Your task to perform on an android device: add a label to a message in the gmail app Image 0: 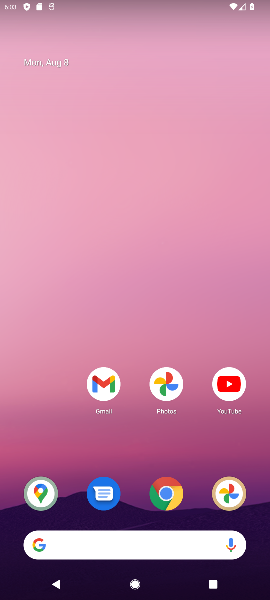
Step 0: drag from (116, 532) to (159, 161)
Your task to perform on an android device: add a label to a message in the gmail app Image 1: 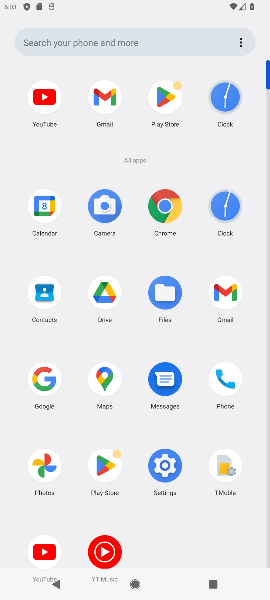
Step 1: click (228, 293)
Your task to perform on an android device: add a label to a message in the gmail app Image 2: 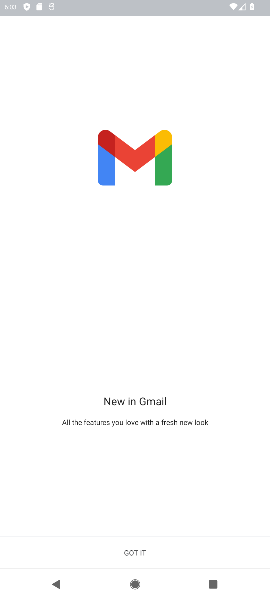
Step 2: click (123, 549)
Your task to perform on an android device: add a label to a message in the gmail app Image 3: 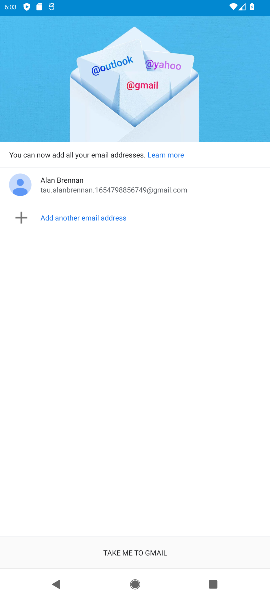
Step 3: click (123, 547)
Your task to perform on an android device: add a label to a message in the gmail app Image 4: 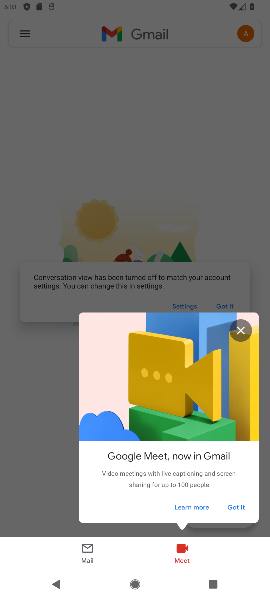
Step 4: click (240, 333)
Your task to perform on an android device: add a label to a message in the gmail app Image 5: 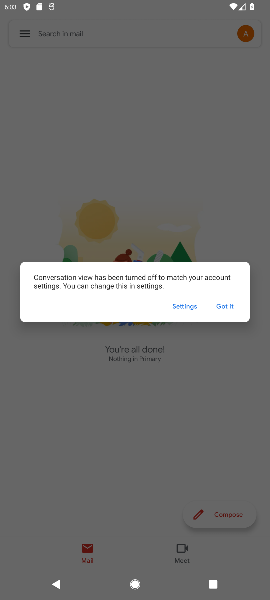
Step 5: click (225, 307)
Your task to perform on an android device: add a label to a message in the gmail app Image 6: 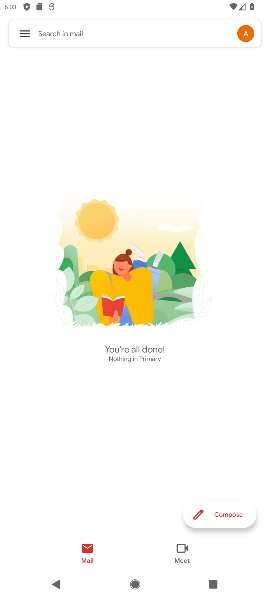
Step 6: task complete